Your task to perform on an android device: Add "alienware aurora" to the cart on newegg, then select checkout. Image 0: 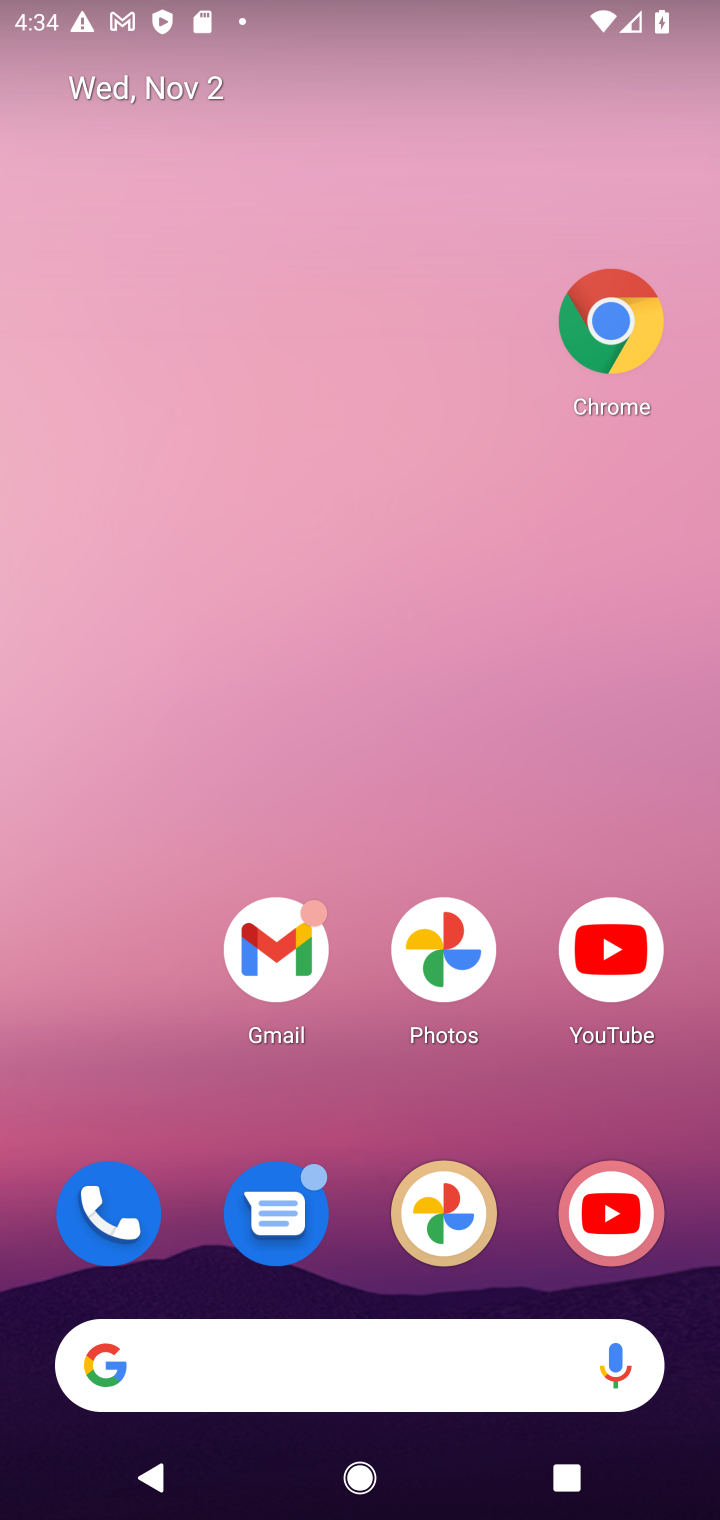
Step 0: drag from (374, 1343) to (509, 209)
Your task to perform on an android device: Add "alienware aurora" to the cart on newegg, then select checkout. Image 1: 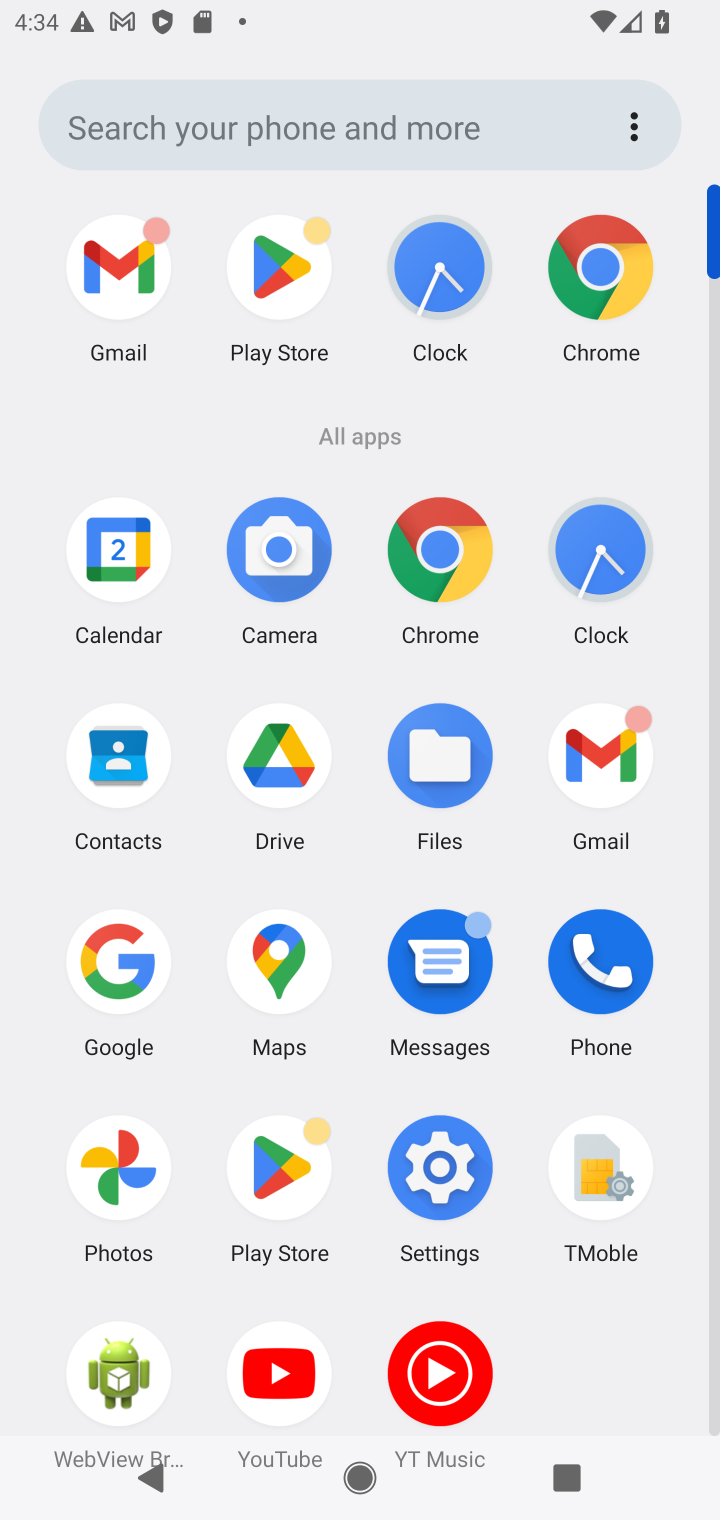
Step 1: click (128, 943)
Your task to perform on an android device: Add "alienware aurora" to the cart on newegg, then select checkout. Image 2: 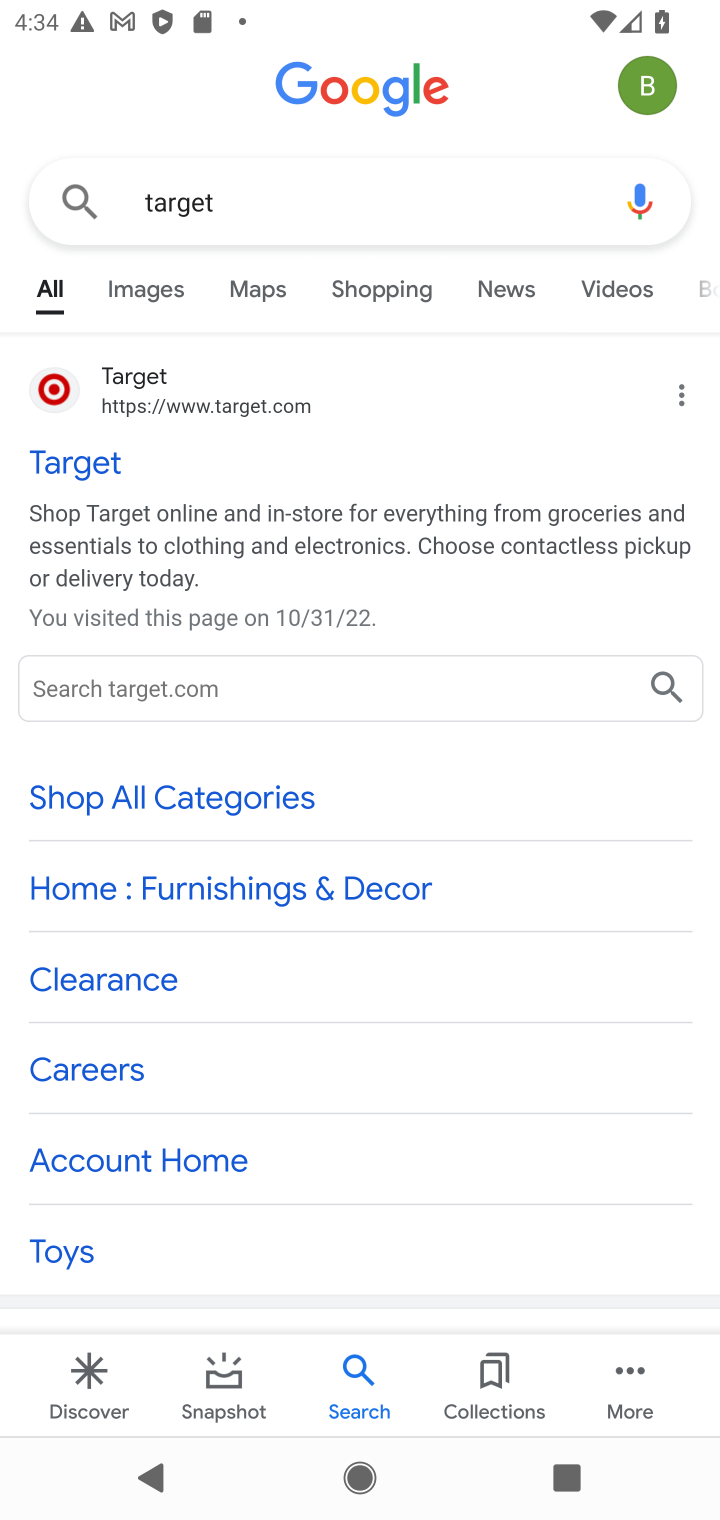
Step 2: click (477, 199)
Your task to perform on an android device: Add "alienware aurora" to the cart on newegg, then select checkout. Image 3: 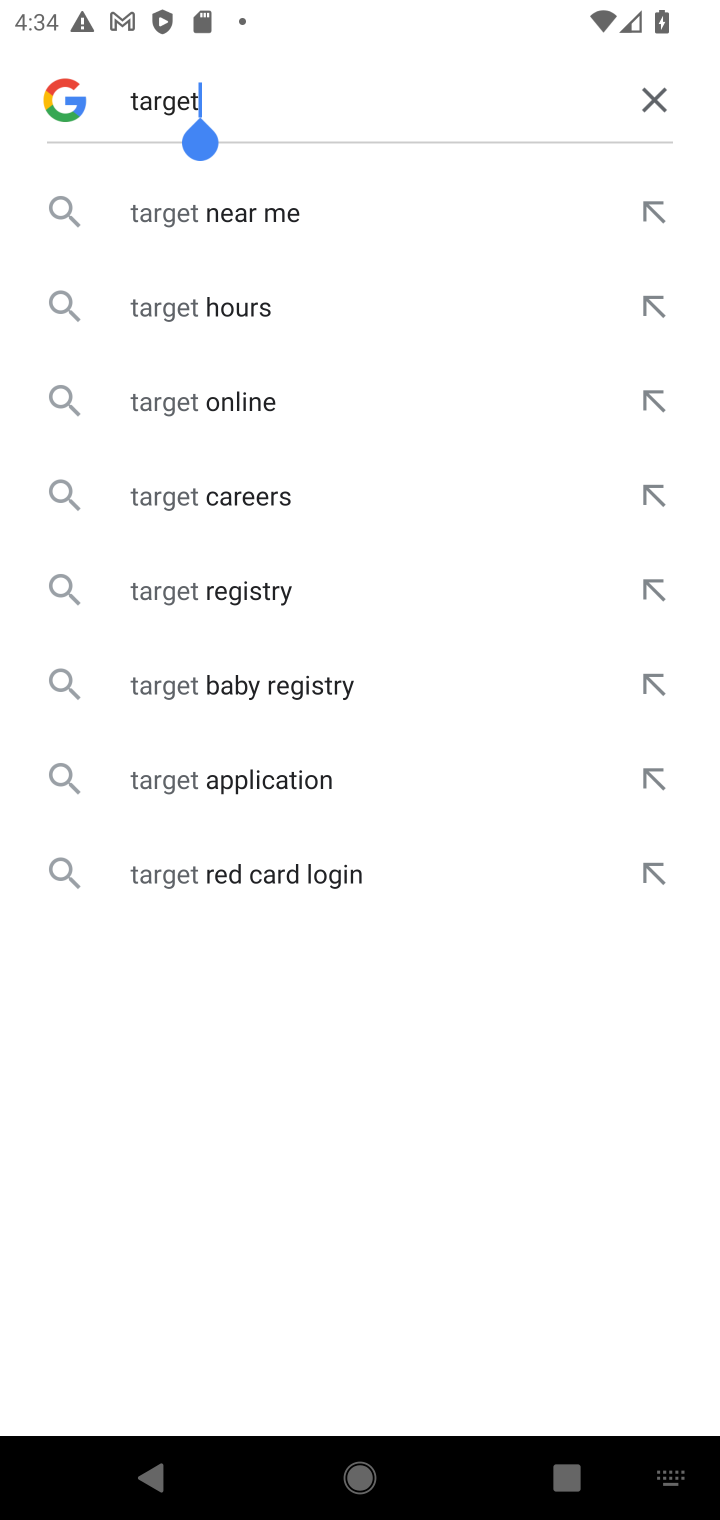
Step 3: click (662, 95)
Your task to perform on an android device: Add "alienware aurora" to the cart on newegg, then select checkout. Image 4: 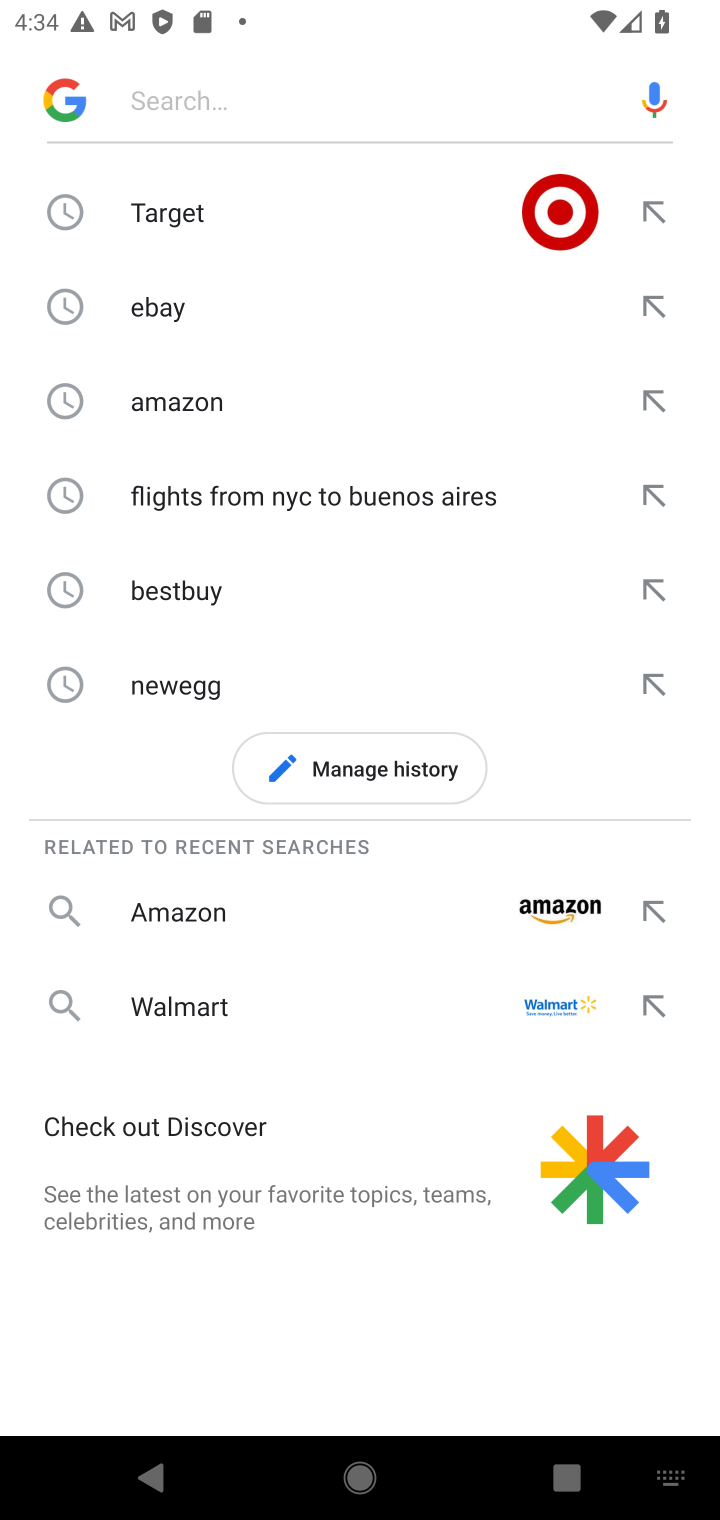
Step 4: click (217, 678)
Your task to perform on an android device: Add "alienware aurora" to the cart on newegg, then select checkout. Image 5: 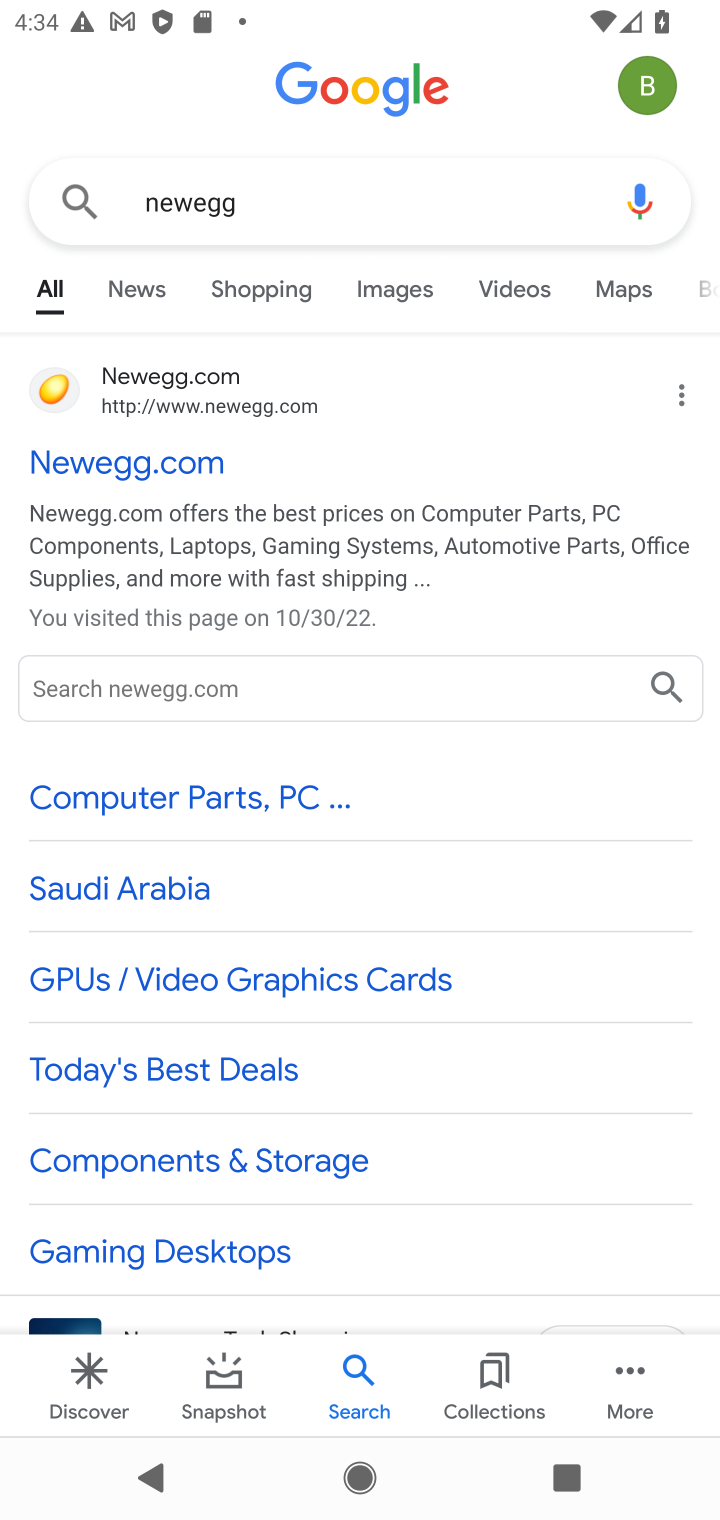
Step 5: click (166, 451)
Your task to perform on an android device: Add "alienware aurora" to the cart on newegg, then select checkout. Image 6: 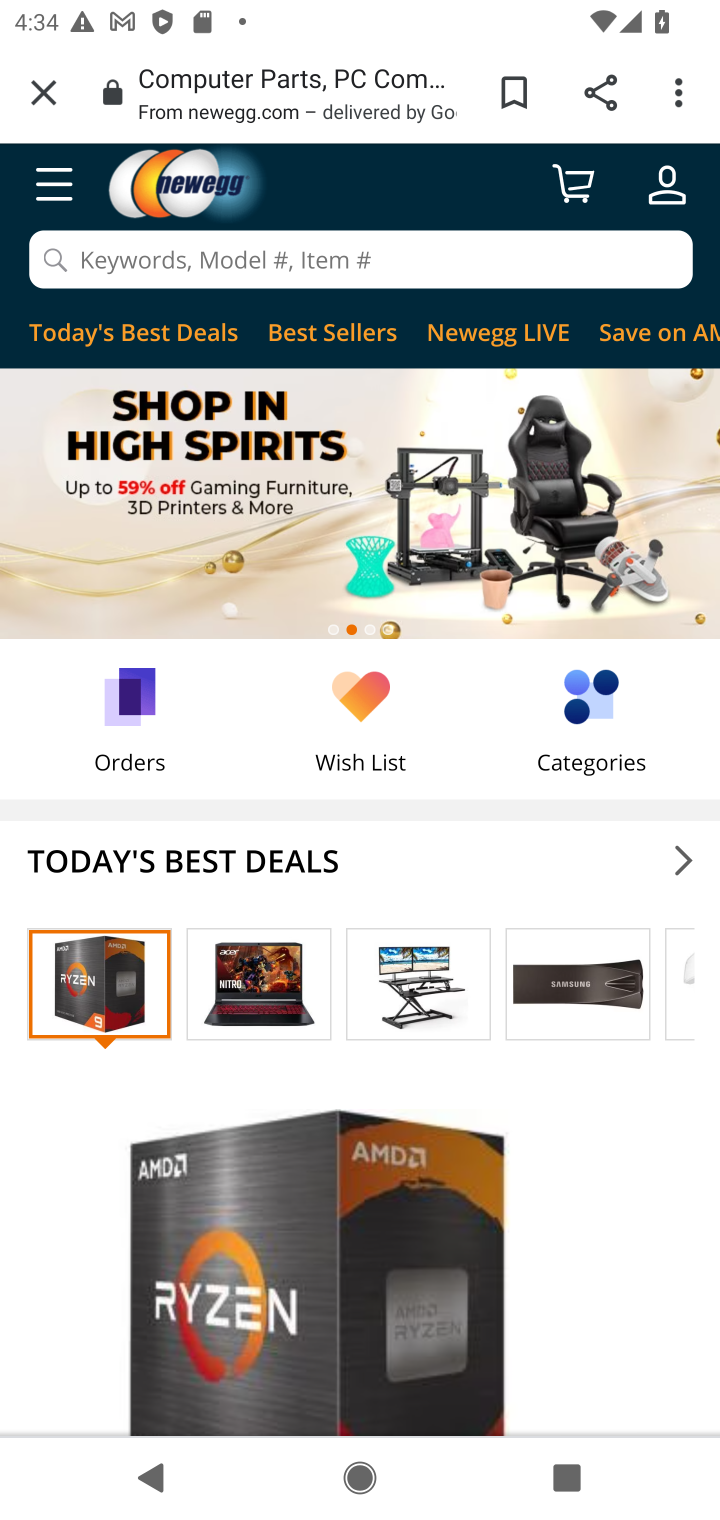
Step 6: click (391, 265)
Your task to perform on an android device: Add "alienware aurora" to the cart on newegg, then select checkout. Image 7: 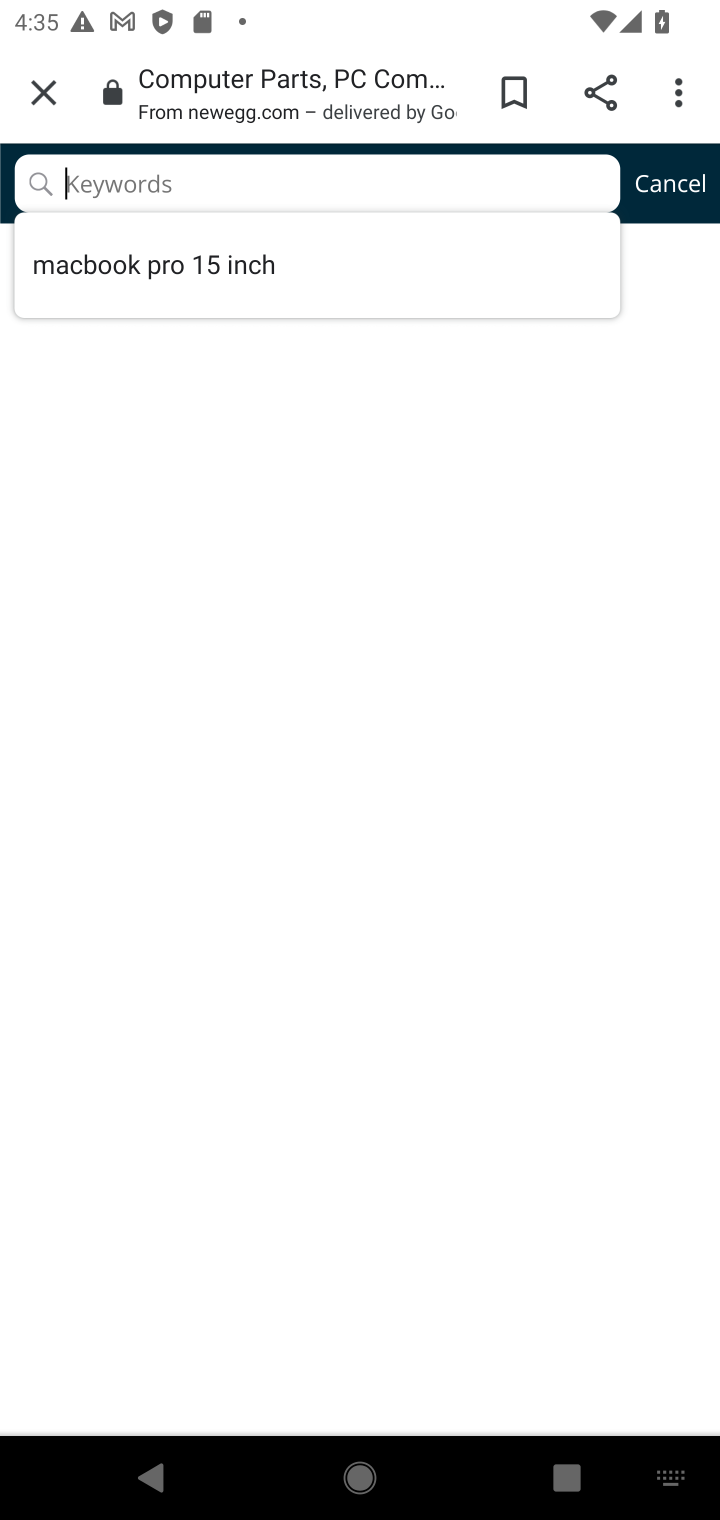
Step 7: type "alienware aurora"
Your task to perform on an android device: Add "alienware aurora" to the cart on newegg, then select checkout. Image 8: 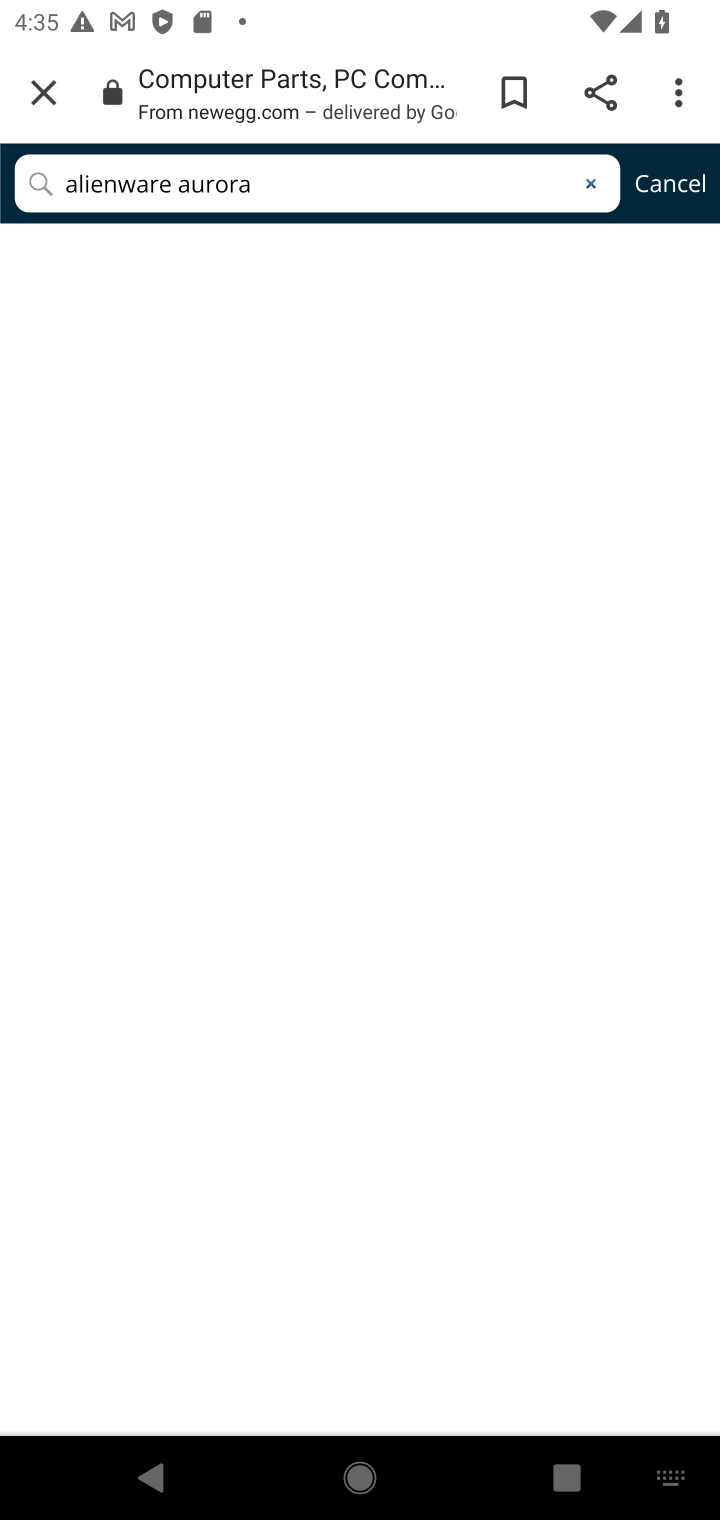
Step 8: task complete